Your task to perform on an android device: see sites visited before in the chrome app Image 0: 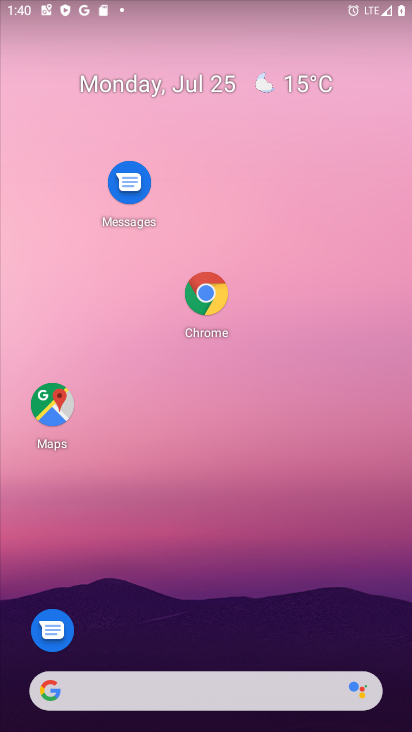
Step 0: drag from (242, 617) to (308, 83)
Your task to perform on an android device: see sites visited before in the chrome app Image 1: 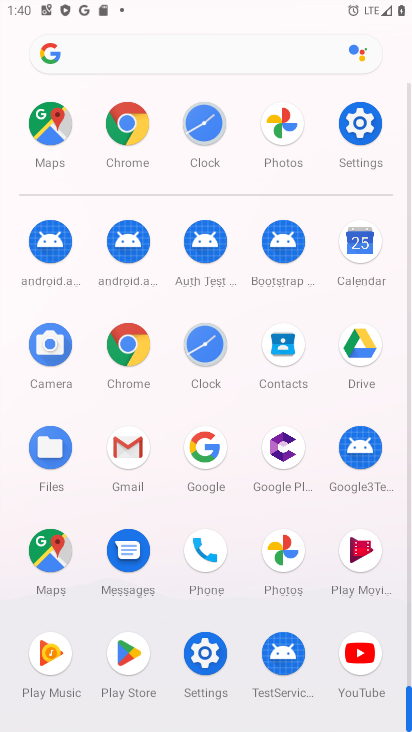
Step 1: click (141, 339)
Your task to perform on an android device: see sites visited before in the chrome app Image 2: 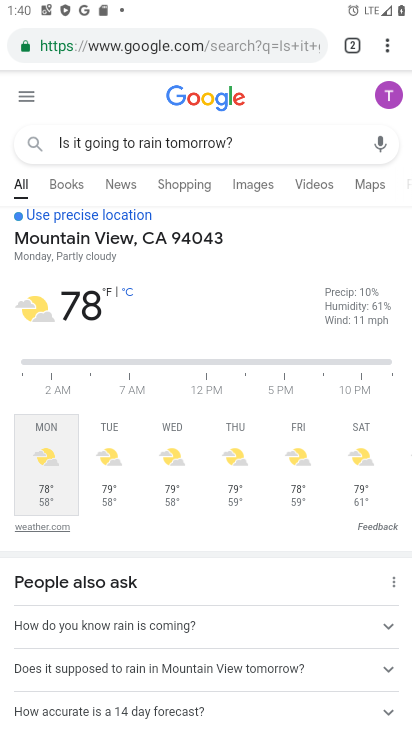
Step 2: drag from (387, 42) to (237, 554)
Your task to perform on an android device: see sites visited before in the chrome app Image 3: 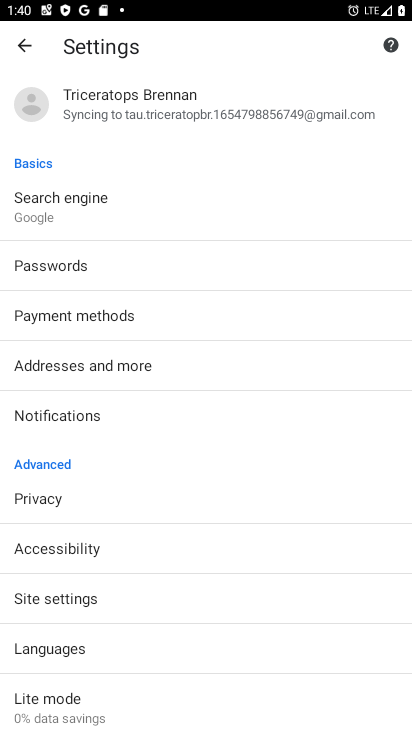
Step 3: click (77, 593)
Your task to perform on an android device: see sites visited before in the chrome app Image 4: 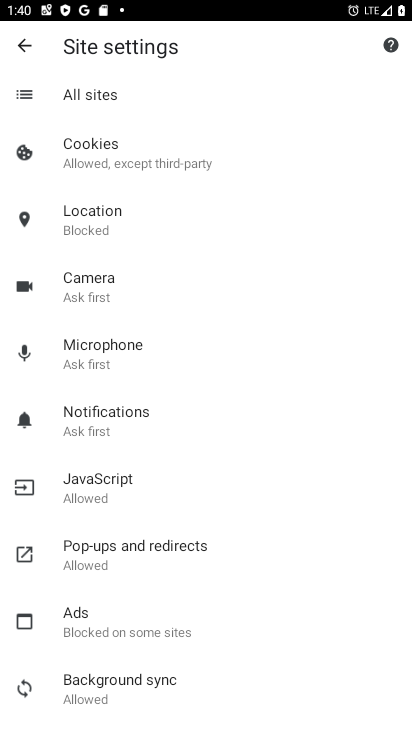
Step 4: click (99, 88)
Your task to perform on an android device: see sites visited before in the chrome app Image 5: 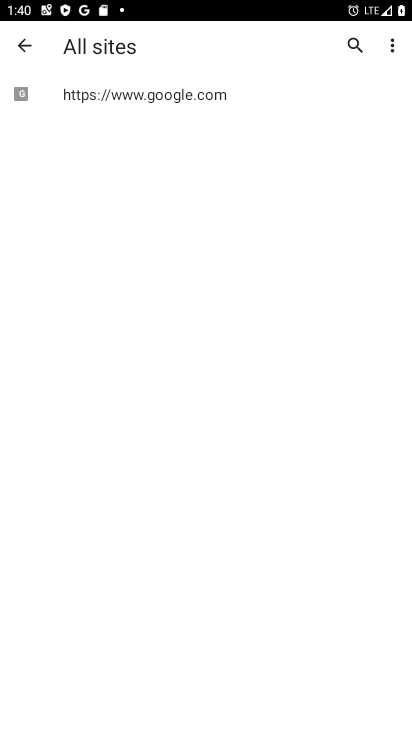
Step 5: click (101, 88)
Your task to perform on an android device: see sites visited before in the chrome app Image 6: 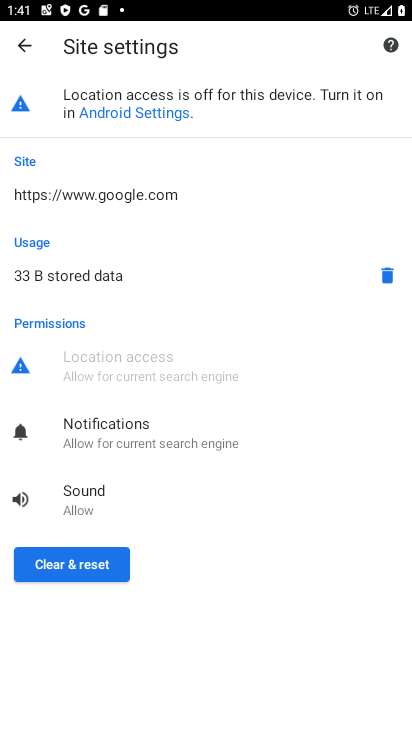
Step 6: task complete